Your task to perform on an android device: Open network settings Image 0: 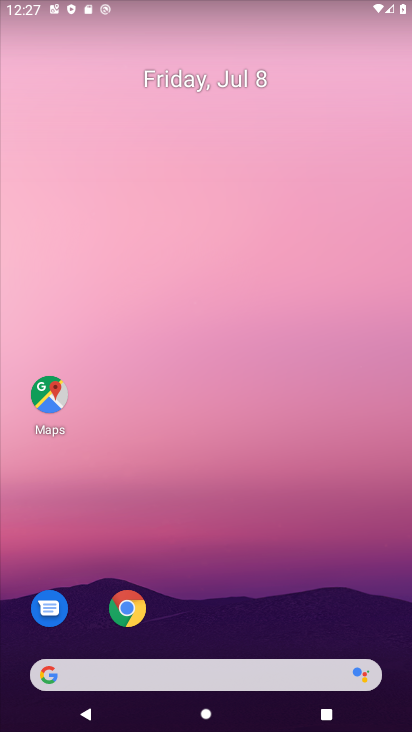
Step 0: drag from (238, 594) to (186, 15)
Your task to perform on an android device: Open network settings Image 1: 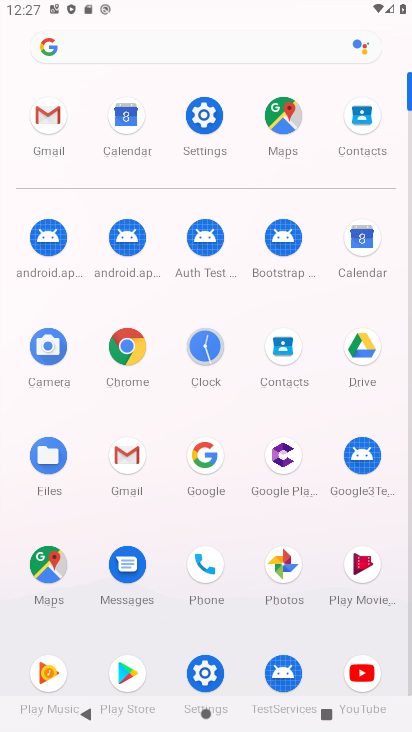
Step 1: click (198, 118)
Your task to perform on an android device: Open network settings Image 2: 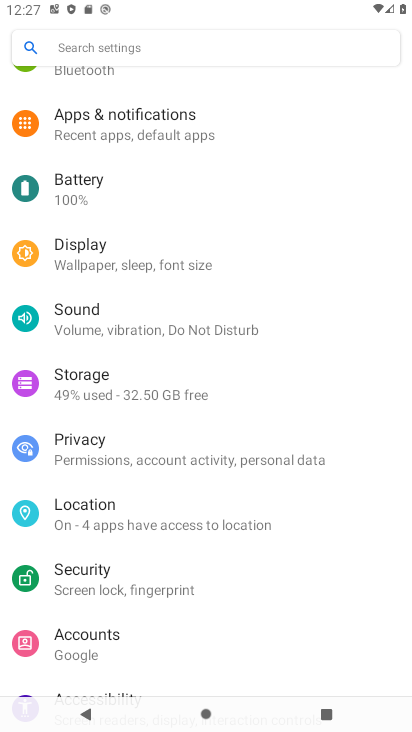
Step 2: drag from (132, 81) to (121, 670)
Your task to perform on an android device: Open network settings Image 3: 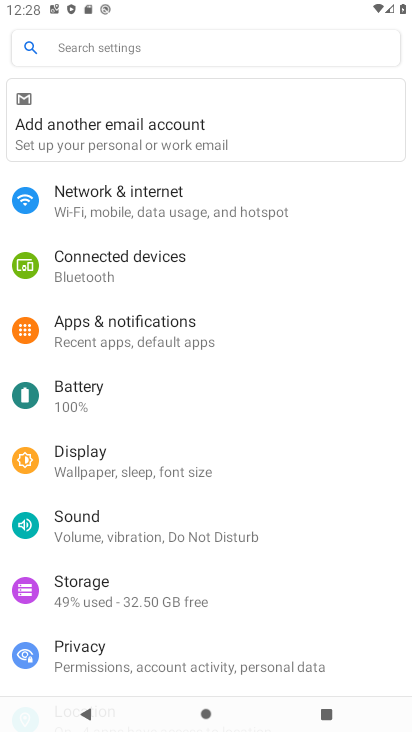
Step 3: click (92, 219)
Your task to perform on an android device: Open network settings Image 4: 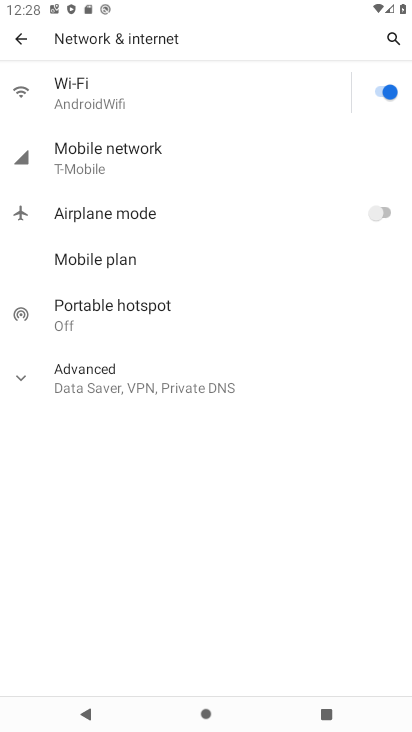
Step 4: task complete